Your task to perform on an android device: all mails in gmail Image 0: 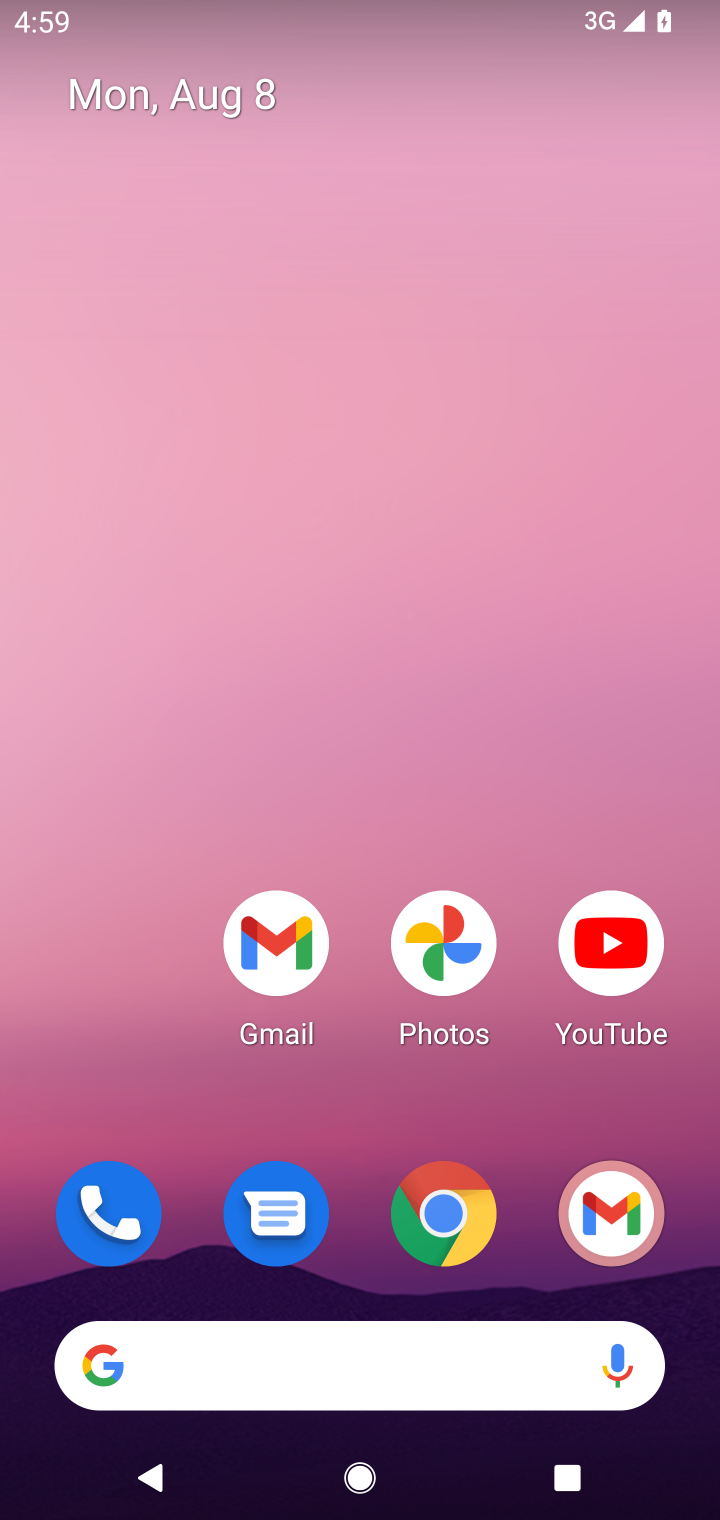
Step 0: click (253, 949)
Your task to perform on an android device: all mails in gmail Image 1: 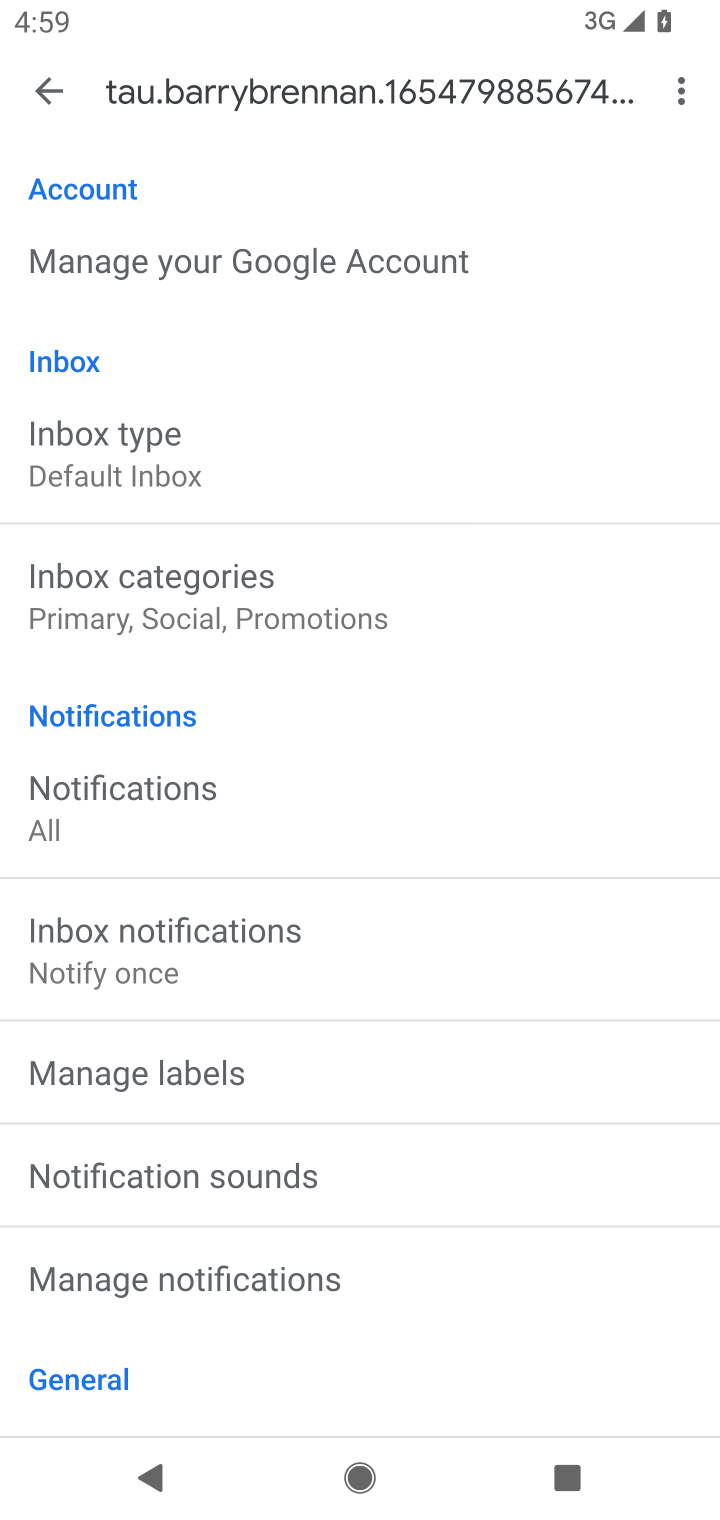
Step 1: click (36, 98)
Your task to perform on an android device: all mails in gmail Image 2: 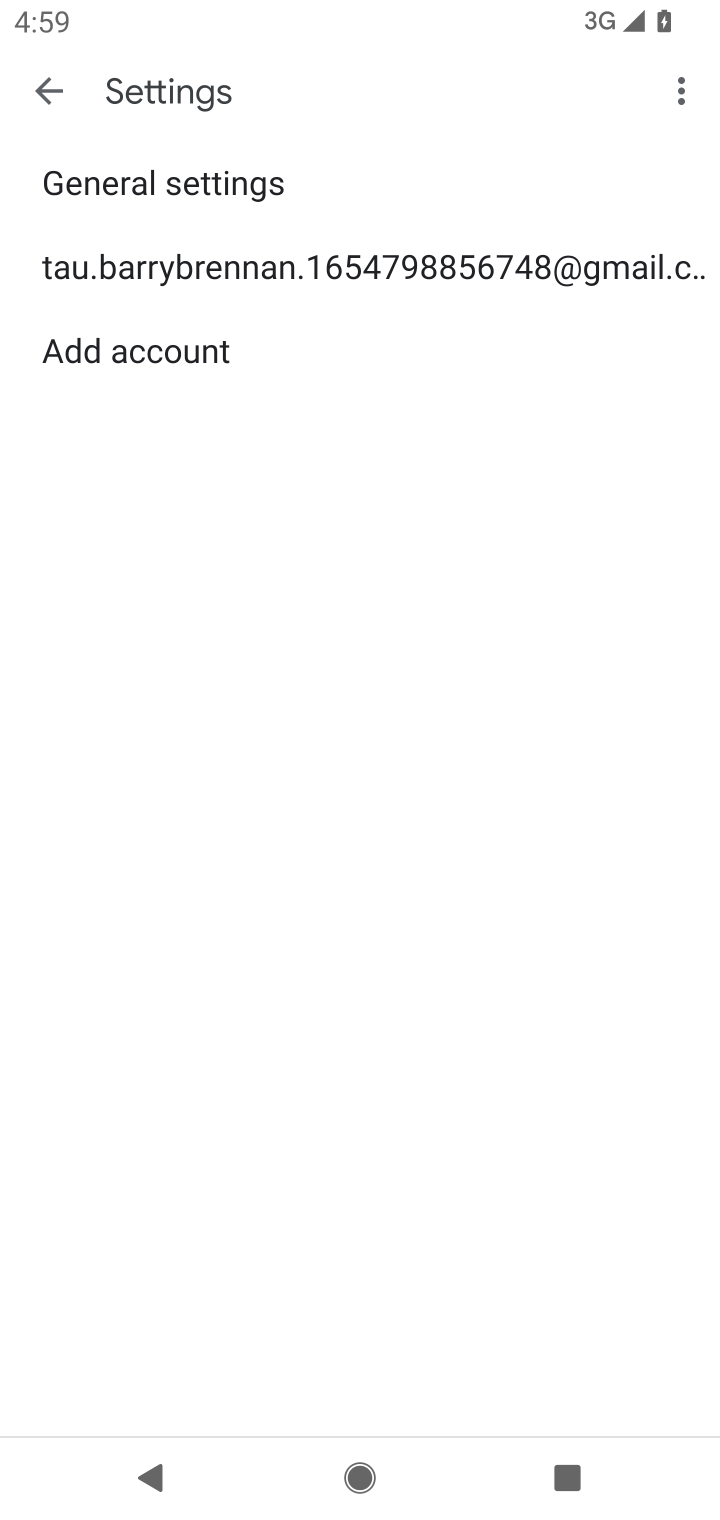
Step 2: click (36, 98)
Your task to perform on an android device: all mails in gmail Image 3: 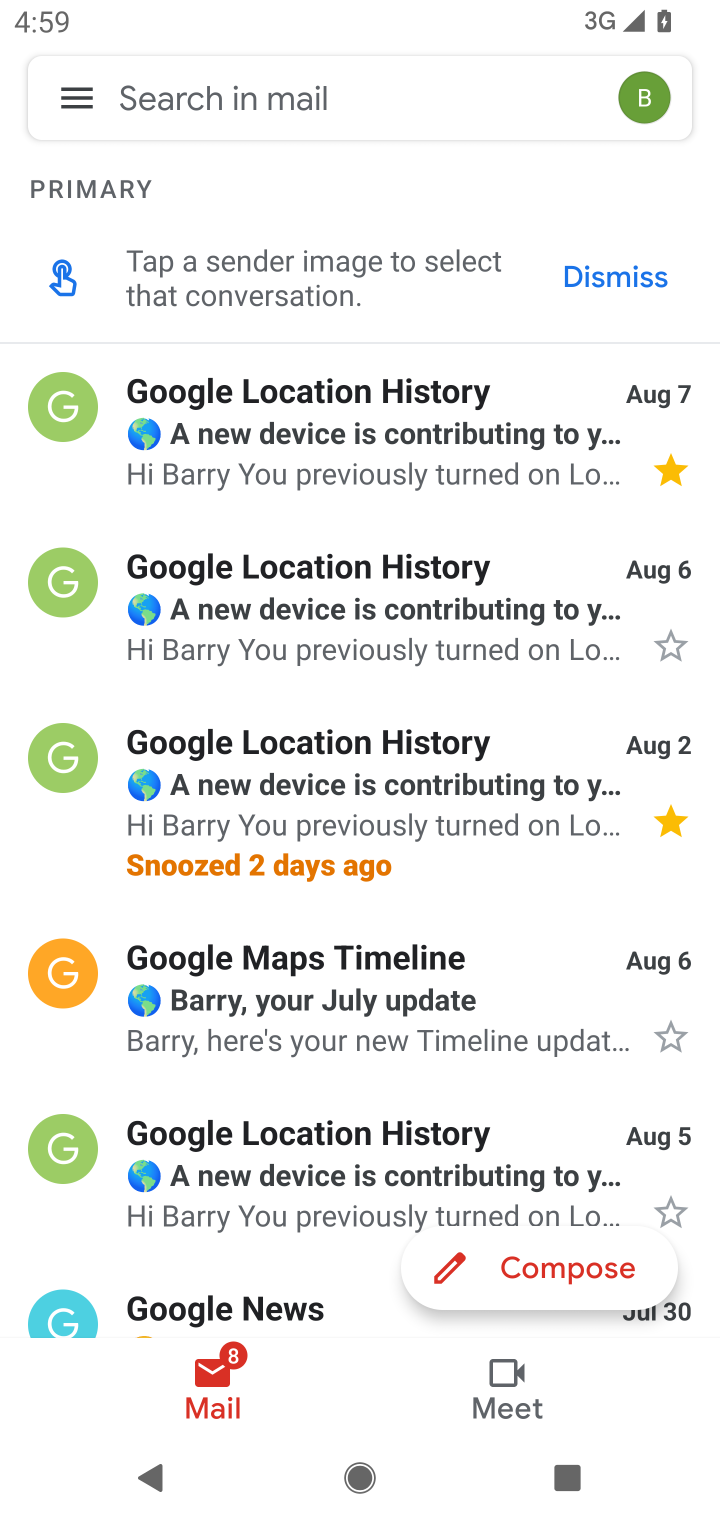
Step 3: click (69, 90)
Your task to perform on an android device: all mails in gmail Image 4: 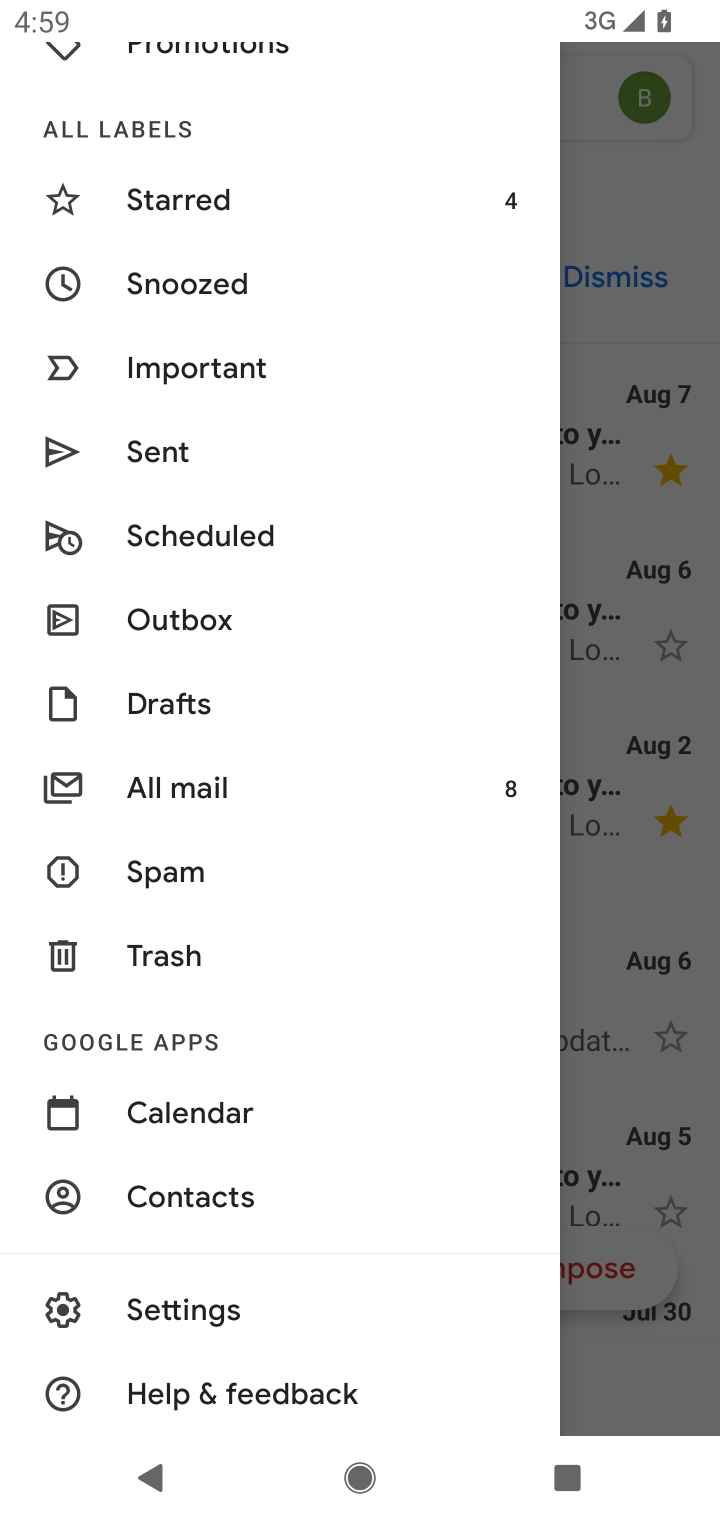
Step 4: click (326, 780)
Your task to perform on an android device: all mails in gmail Image 5: 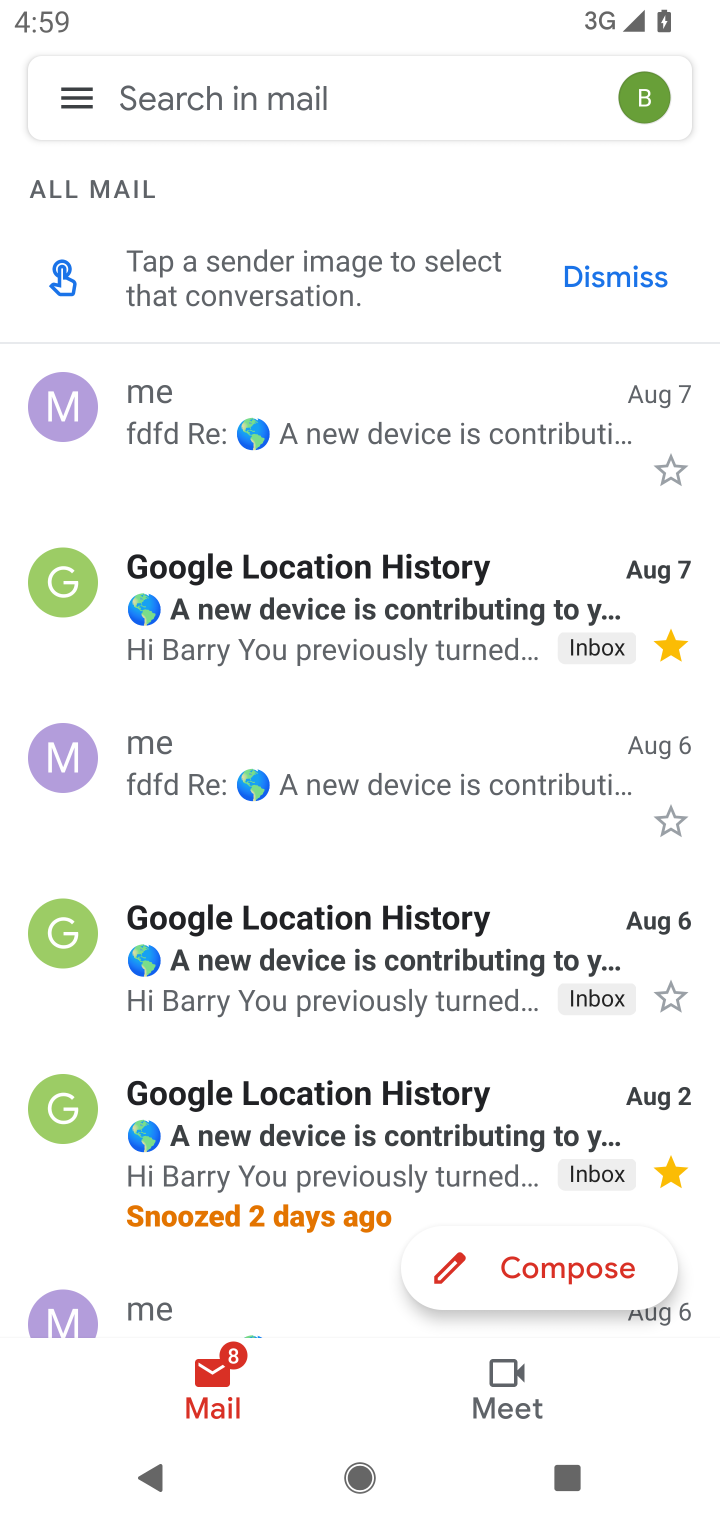
Step 5: task complete